Your task to perform on an android device: turn vacation reply on in the gmail app Image 0: 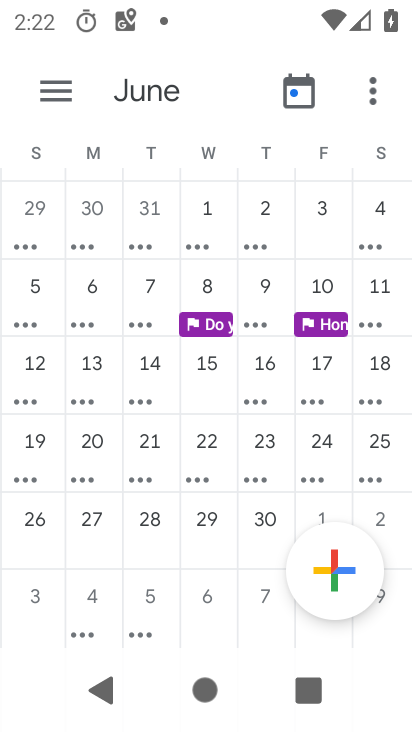
Step 0: press home button
Your task to perform on an android device: turn vacation reply on in the gmail app Image 1: 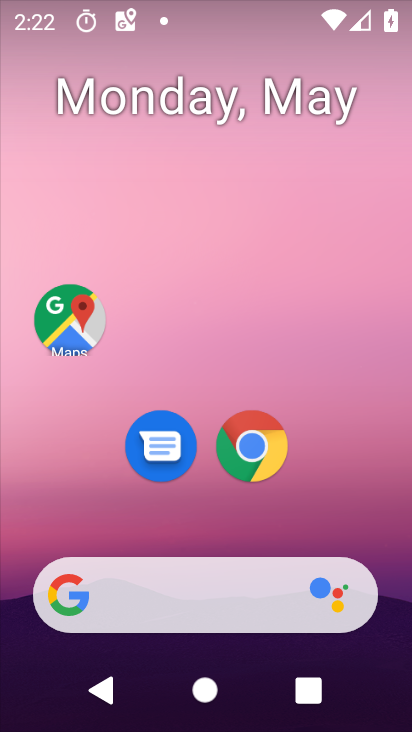
Step 1: drag from (215, 614) to (218, 178)
Your task to perform on an android device: turn vacation reply on in the gmail app Image 2: 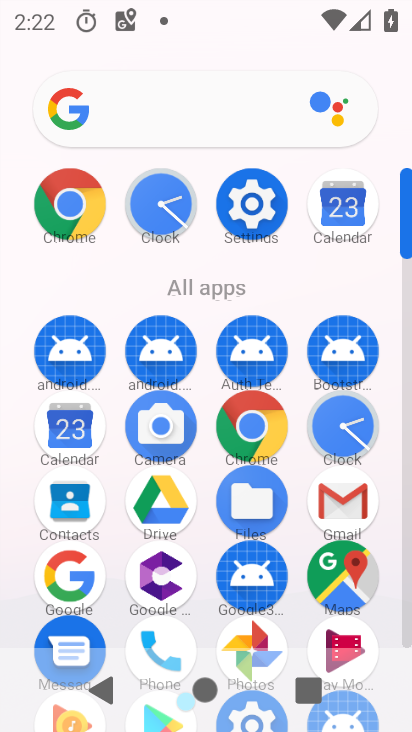
Step 2: click (335, 504)
Your task to perform on an android device: turn vacation reply on in the gmail app Image 3: 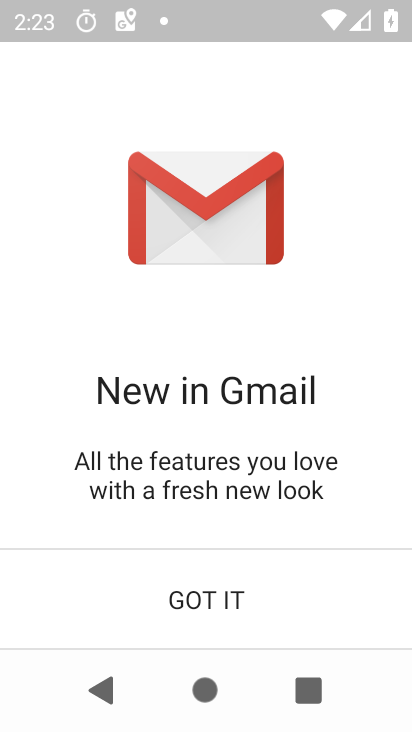
Step 3: click (238, 583)
Your task to perform on an android device: turn vacation reply on in the gmail app Image 4: 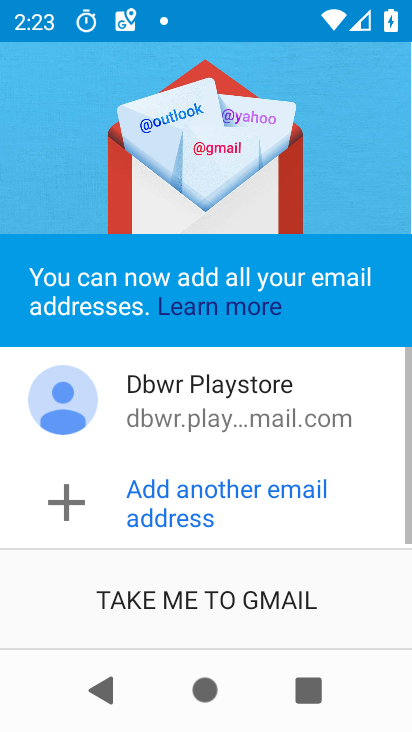
Step 4: click (238, 583)
Your task to perform on an android device: turn vacation reply on in the gmail app Image 5: 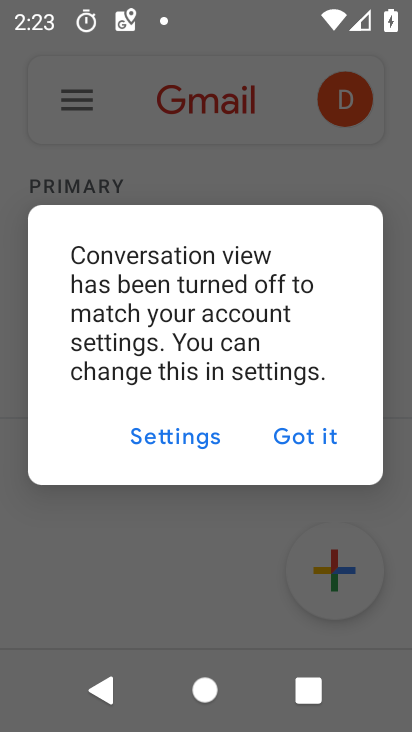
Step 5: click (290, 439)
Your task to perform on an android device: turn vacation reply on in the gmail app Image 6: 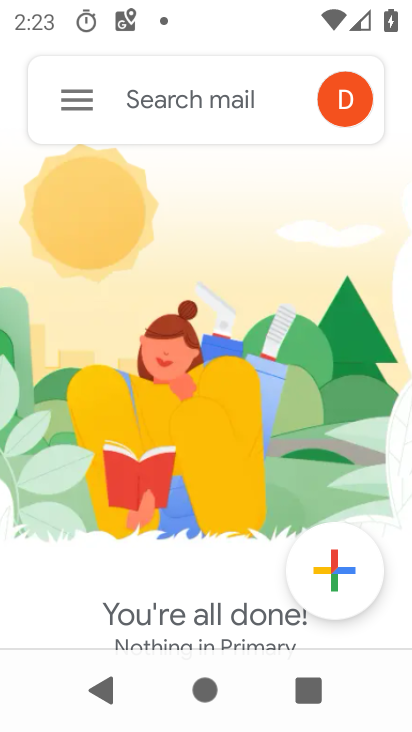
Step 6: click (69, 103)
Your task to perform on an android device: turn vacation reply on in the gmail app Image 7: 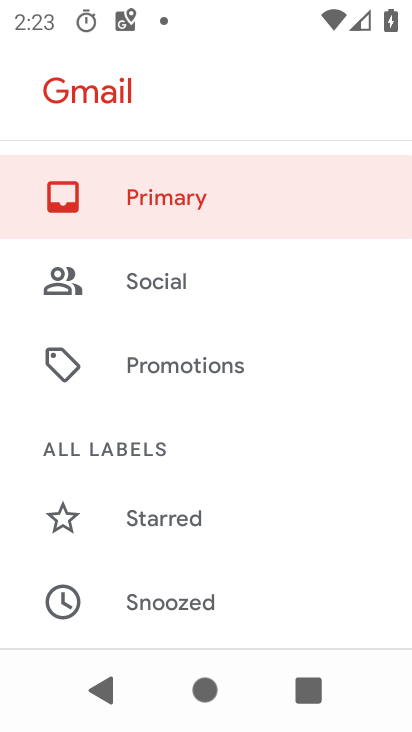
Step 7: drag from (165, 548) to (186, 35)
Your task to perform on an android device: turn vacation reply on in the gmail app Image 8: 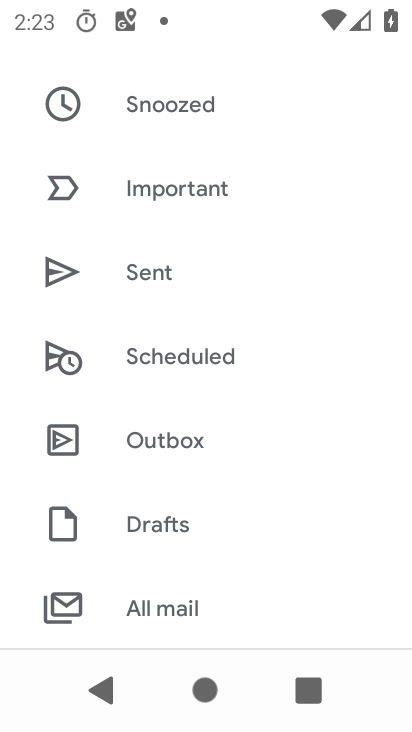
Step 8: drag from (233, 482) to (231, 6)
Your task to perform on an android device: turn vacation reply on in the gmail app Image 9: 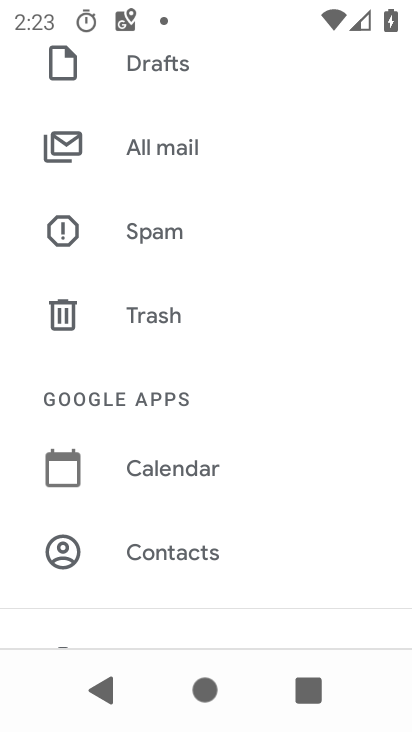
Step 9: drag from (185, 532) to (207, 153)
Your task to perform on an android device: turn vacation reply on in the gmail app Image 10: 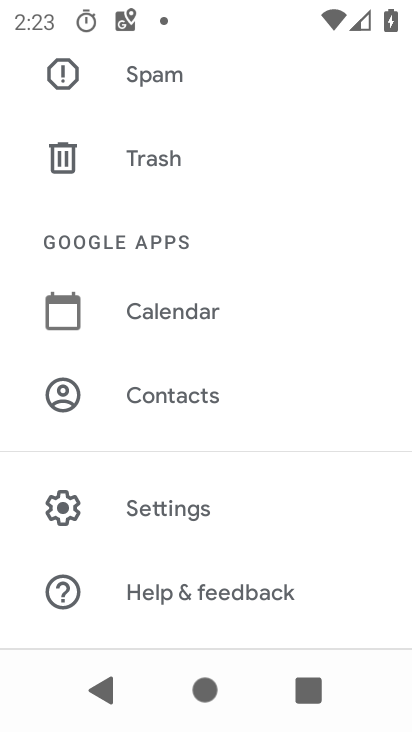
Step 10: click (151, 509)
Your task to perform on an android device: turn vacation reply on in the gmail app Image 11: 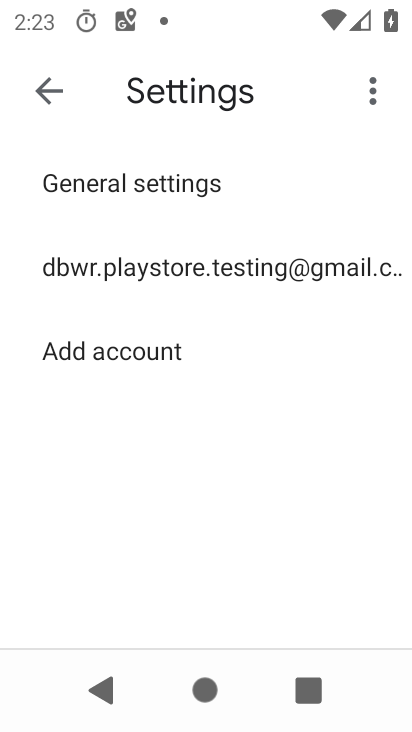
Step 11: click (179, 276)
Your task to perform on an android device: turn vacation reply on in the gmail app Image 12: 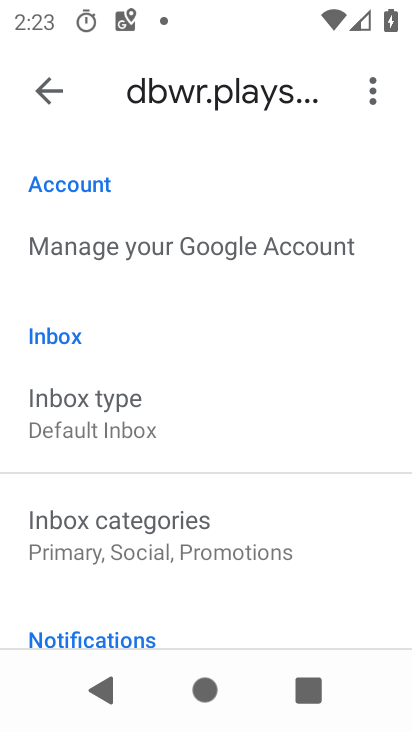
Step 12: drag from (227, 531) to (219, 47)
Your task to perform on an android device: turn vacation reply on in the gmail app Image 13: 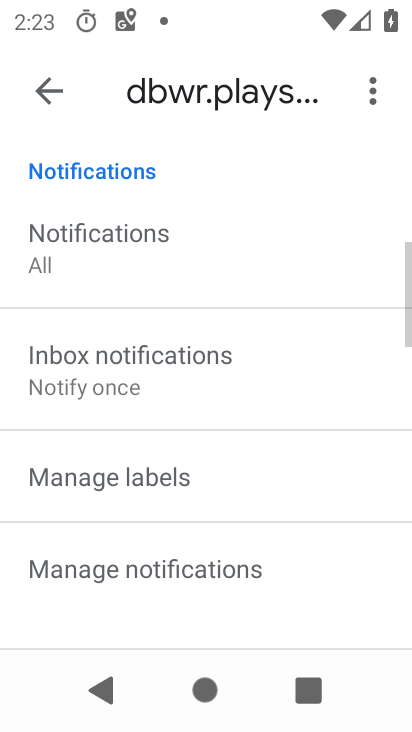
Step 13: drag from (229, 507) to (261, 14)
Your task to perform on an android device: turn vacation reply on in the gmail app Image 14: 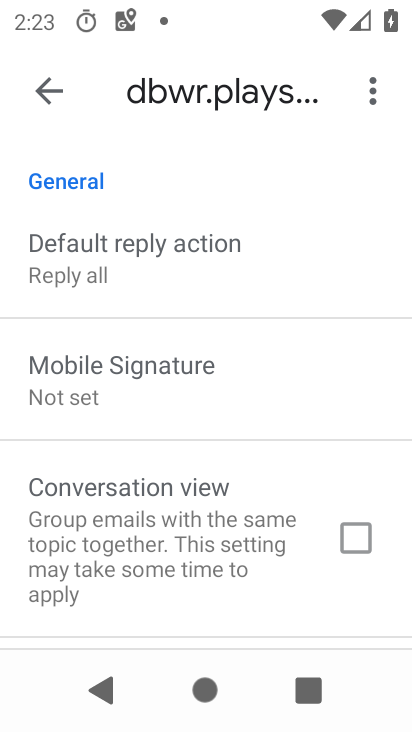
Step 14: drag from (303, 551) to (330, 40)
Your task to perform on an android device: turn vacation reply on in the gmail app Image 15: 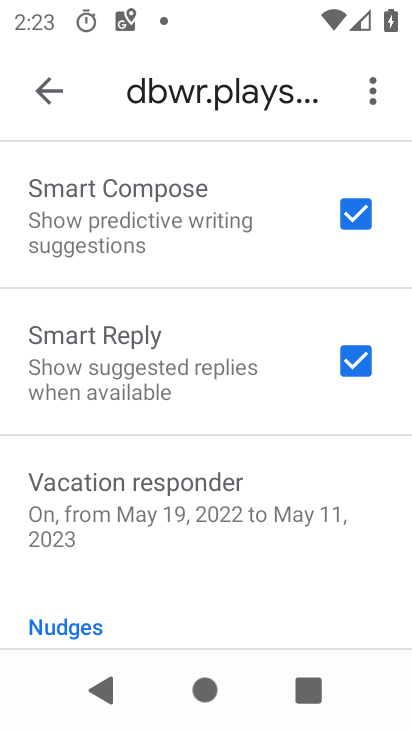
Step 15: click (258, 500)
Your task to perform on an android device: turn vacation reply on in the gmail app Image 16: 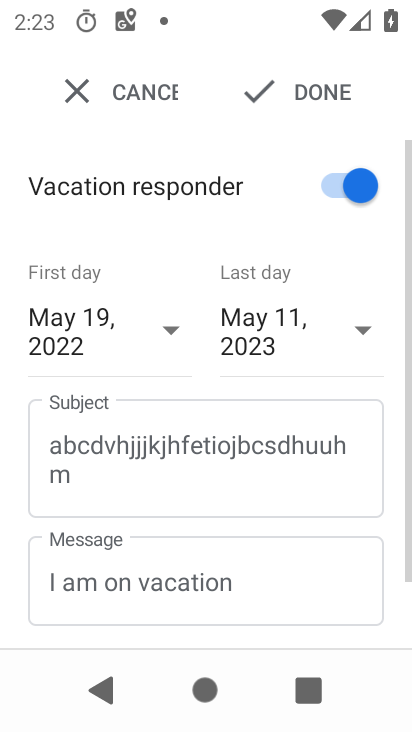
Step 16: click (318, 92)
Your task to perform on an android device: turn vacation reply on in the gmail app Image 17: 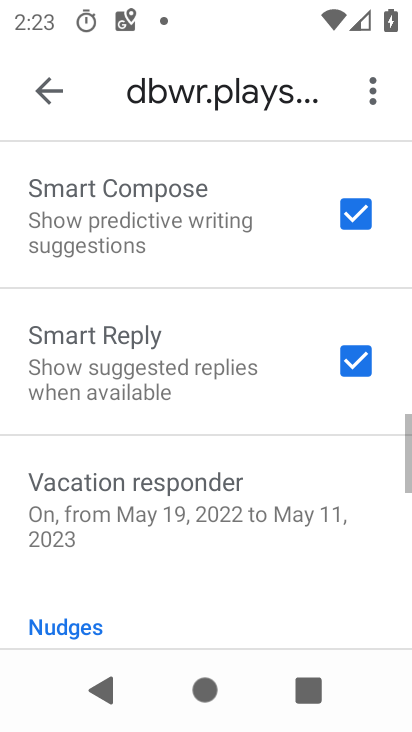
Step 17: task complete